Your task to perform on an android device: toggle show notifications on the lock screen Image 0: 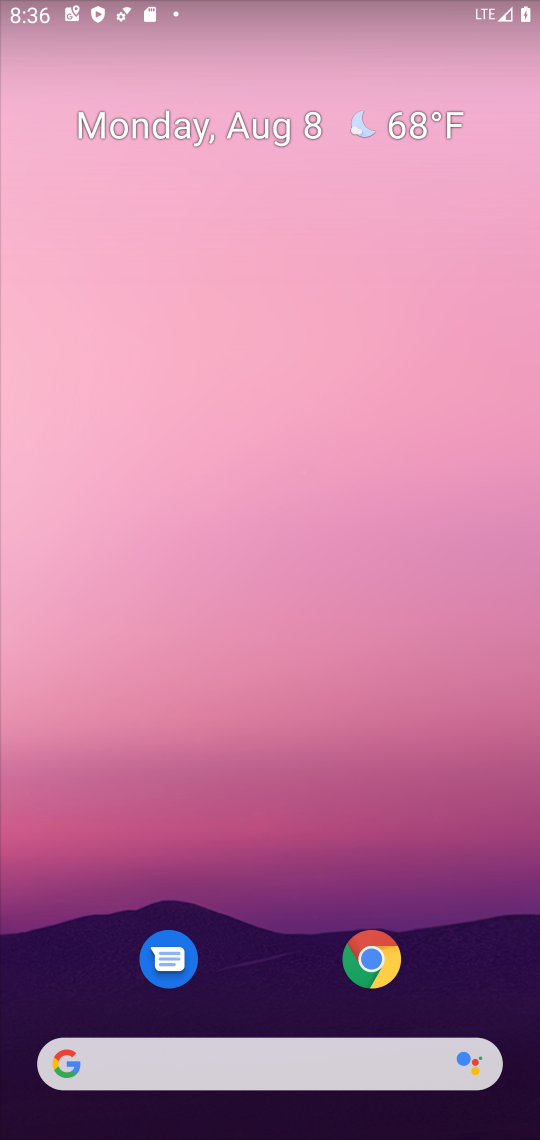
Step 0: drag from (489, 1004) to (280, 92)
Your task to perform on an android device: toggle show notifications on the lock screen Image 1: 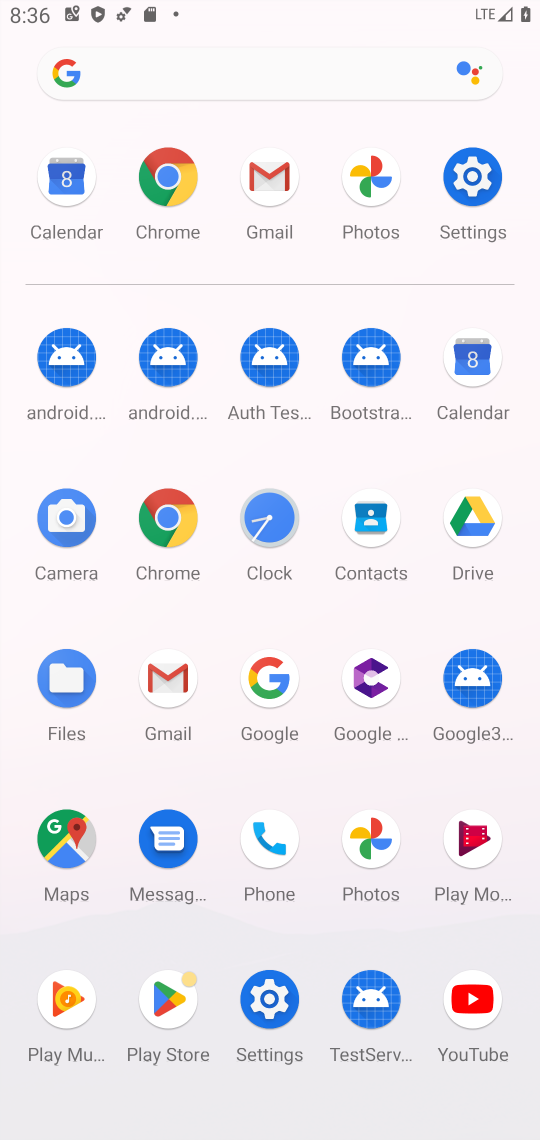
Step 1: click (259, 980)
Your task to perform on an android device: toggle show notifications on the lock screen Image 2: 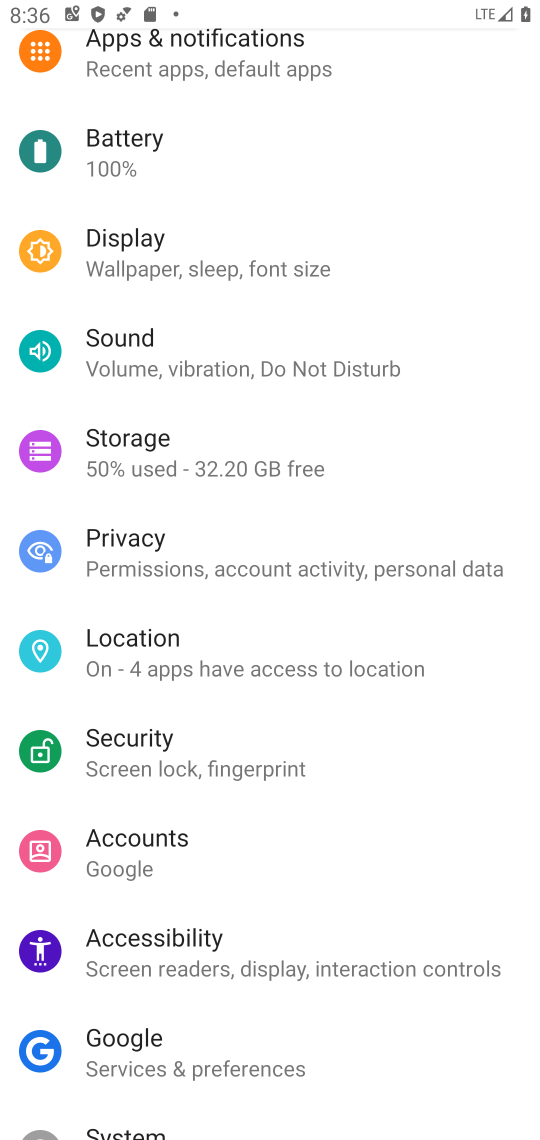
Step 2: click (214, 59)
Your task to perform on an android device: toggle show notifications on the lock screen Image 3: 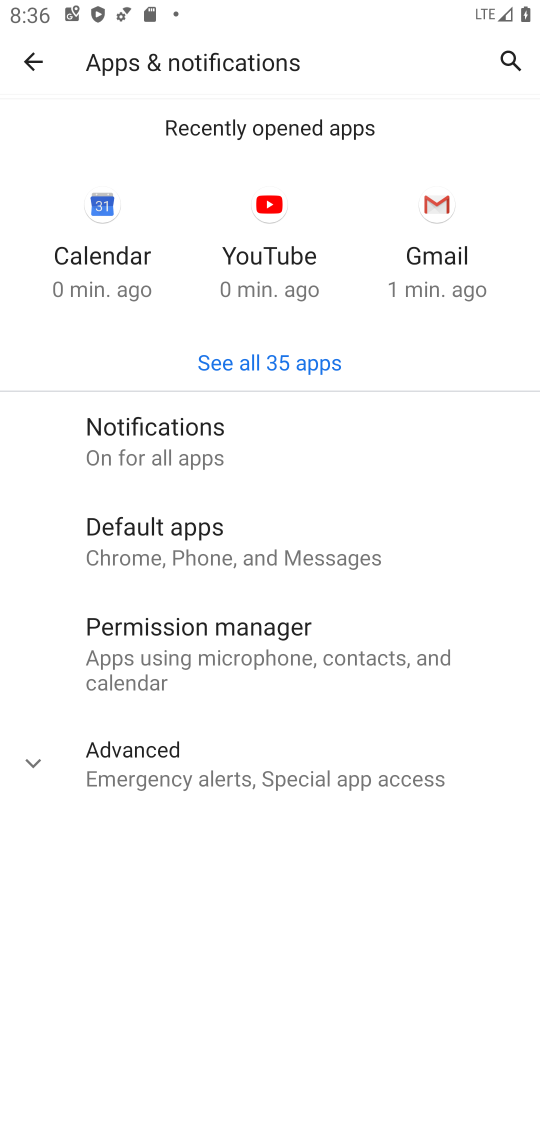
Step 3: click (166, 436)
Your task to perform on an android device: toggle show notifications on the lock screen Image 4: 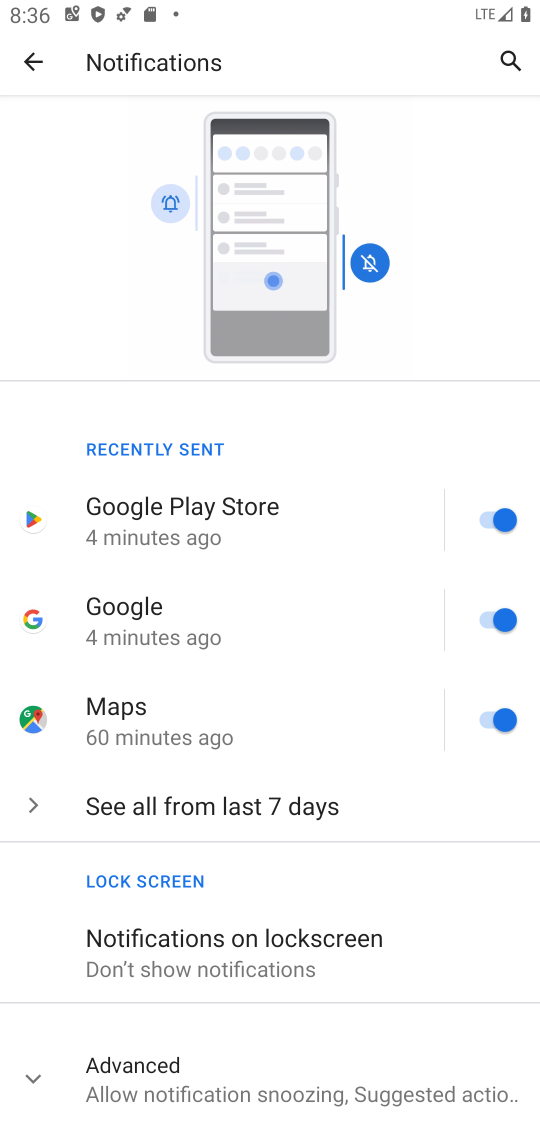
Step 4: click (225, 951)
Your task to perform on an android device: toggle show notifications on the lock screen Image 5: 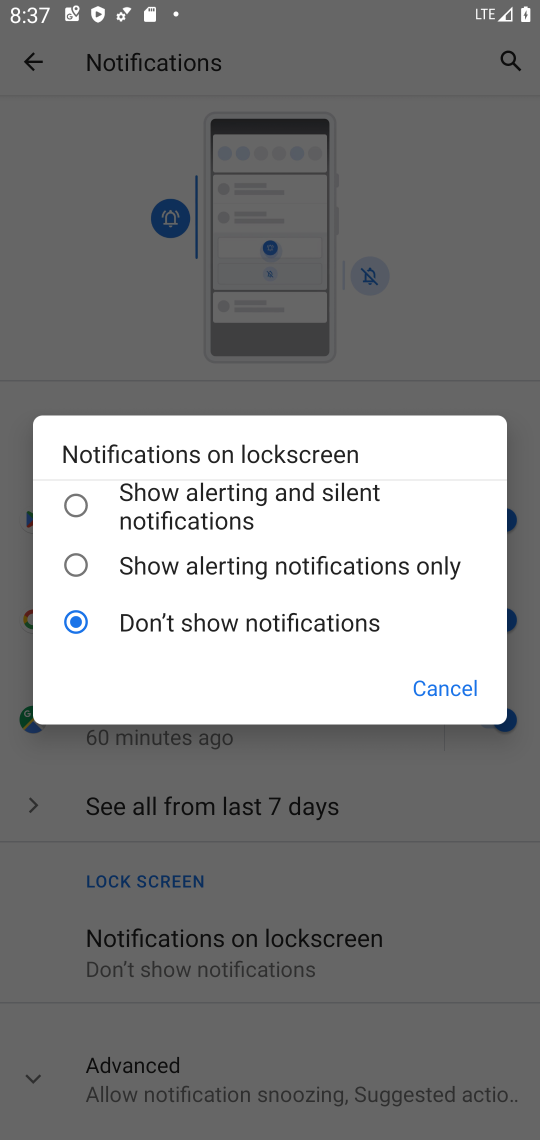
Step 5: click (112, 502)
Your task to perform on an android device: toggle show notifications on the lock screen Image 6: 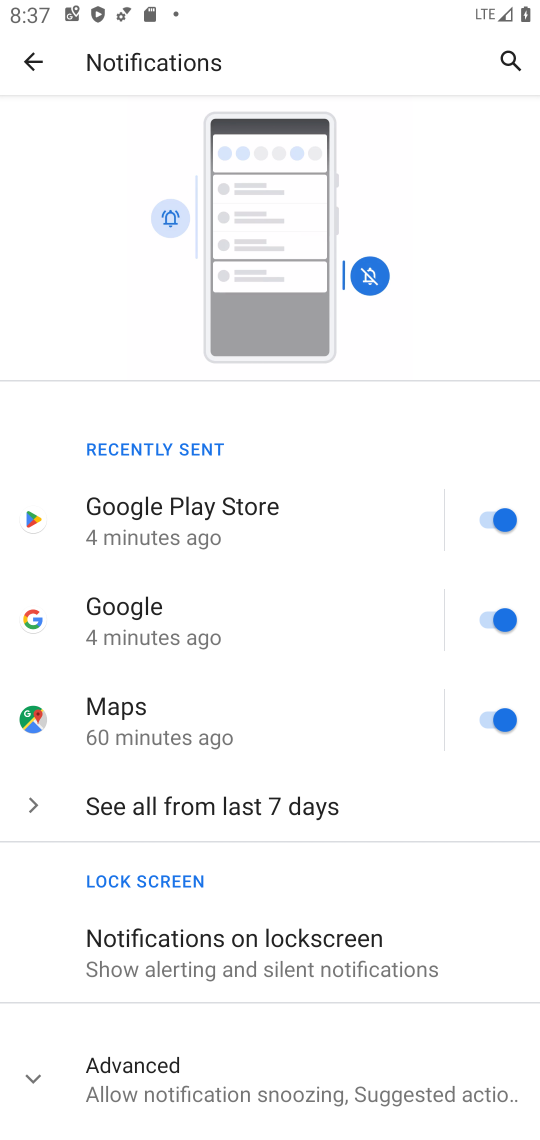
Step 6: task complete